Your task to perform on an android device: turn pop-ups off in chrome Image 0: 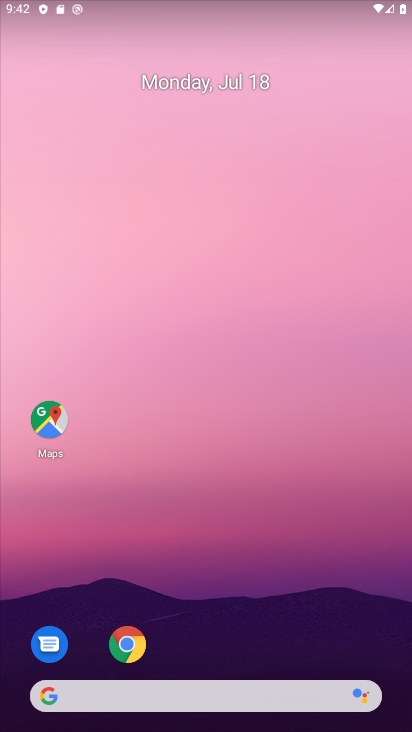
Step 0: drag from (218, 619) to (276, 100)
Your task to perform on an android device: turn pop-ups off in chrome Image 1: 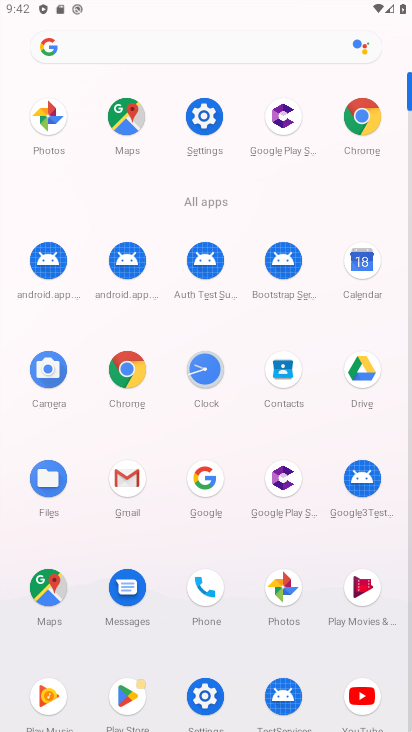
Step 1: click (127, 369)
Your task to perform on an android device: turn pop-ups off in chrome Image 2: 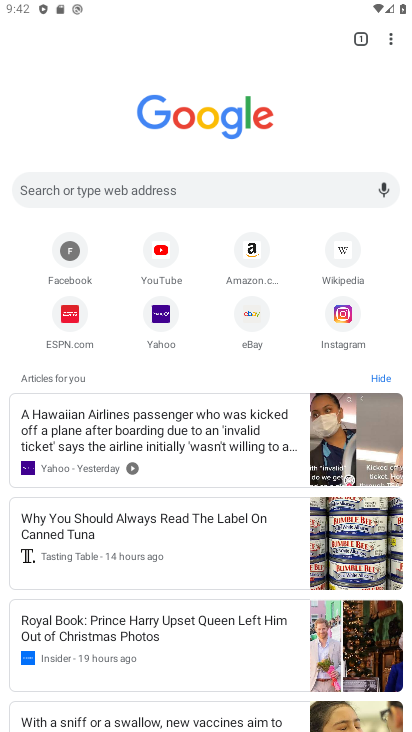
Step 2: drag from (389, 39) to (318, 310)
Your task to perform on an android device: turn pop-ups off in chrome Image 3: 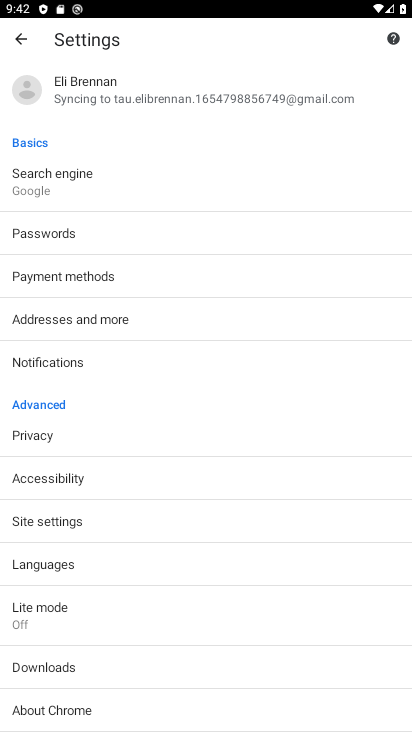
Step 3: click (108, 534)
Your task to perform on an android device: turn pop-ups off in chrome Image 4: 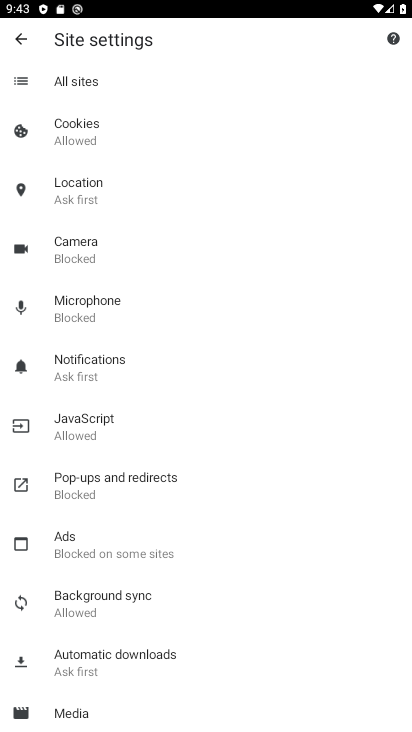
Step 4: click (159, 489)
Your task to perform on an android device: turn pop-ups off in chrome Image 5: 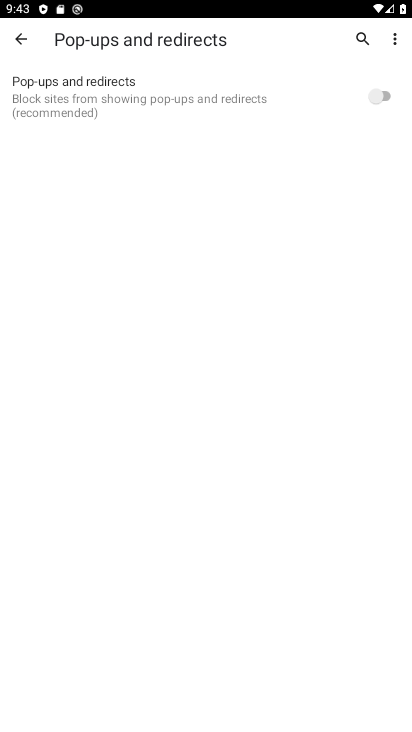
Step 5: task complete